Your task to perform on an android device: Go to Reddit Image 0: 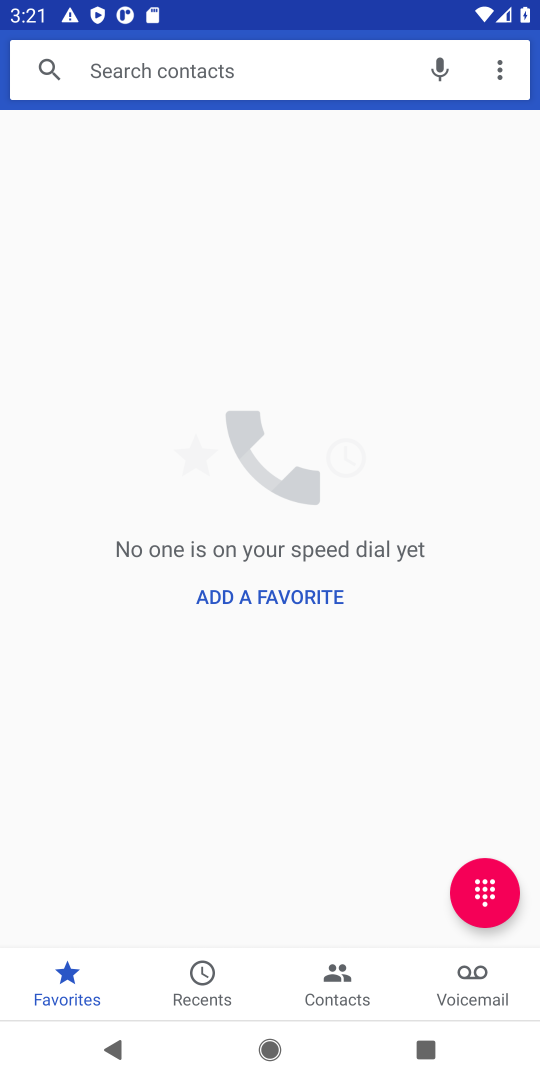
Step 0: press home button
Your task to perform on an android device: Go to Reddit Image 1: 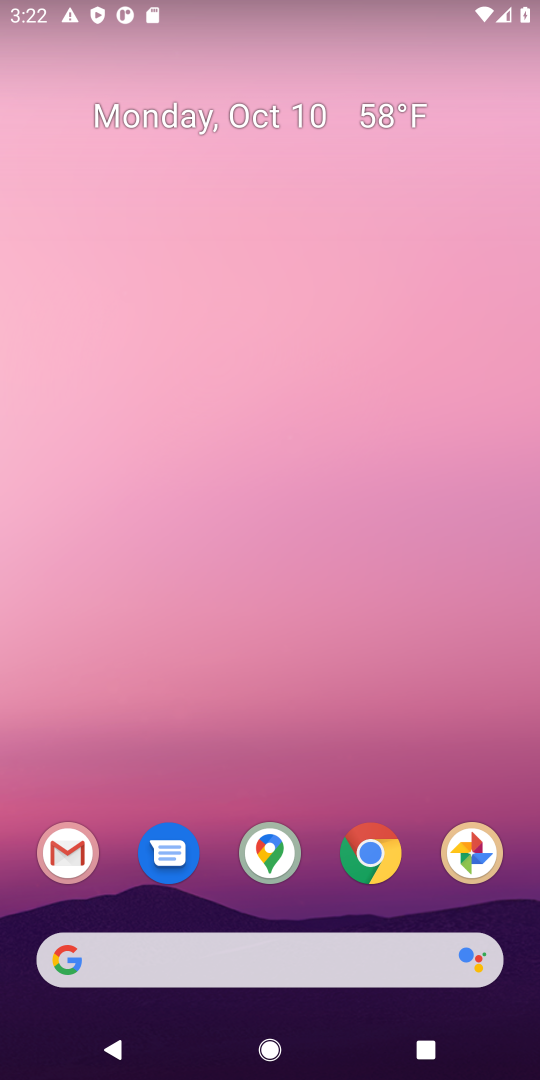
Step 1: click (222, 961)
Your task to perform on an android device: Go to Reddit Image 2: 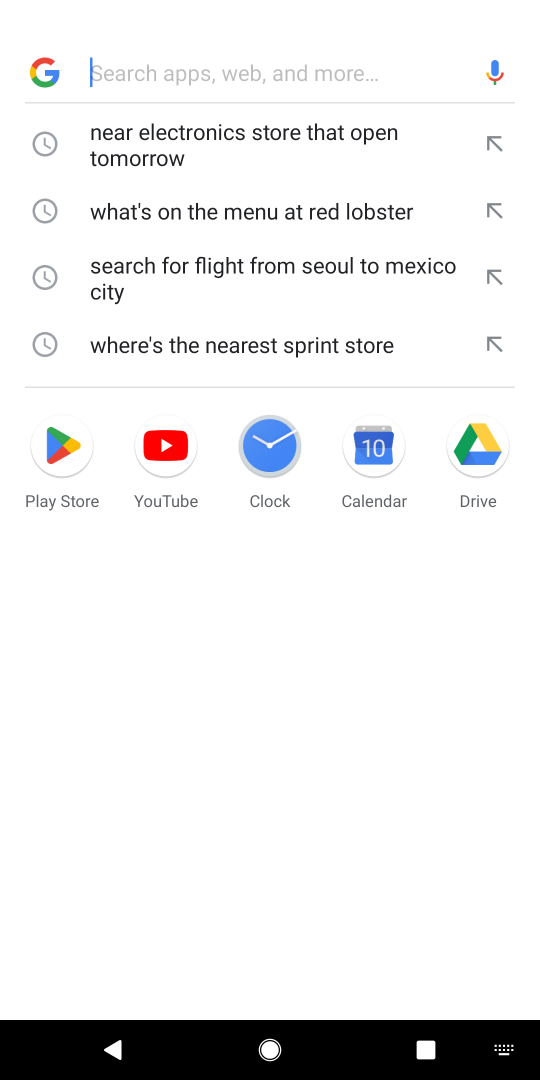
Step 2: click (201, 92)
Your task to perform on an android device: Go to Reddit Image 3: 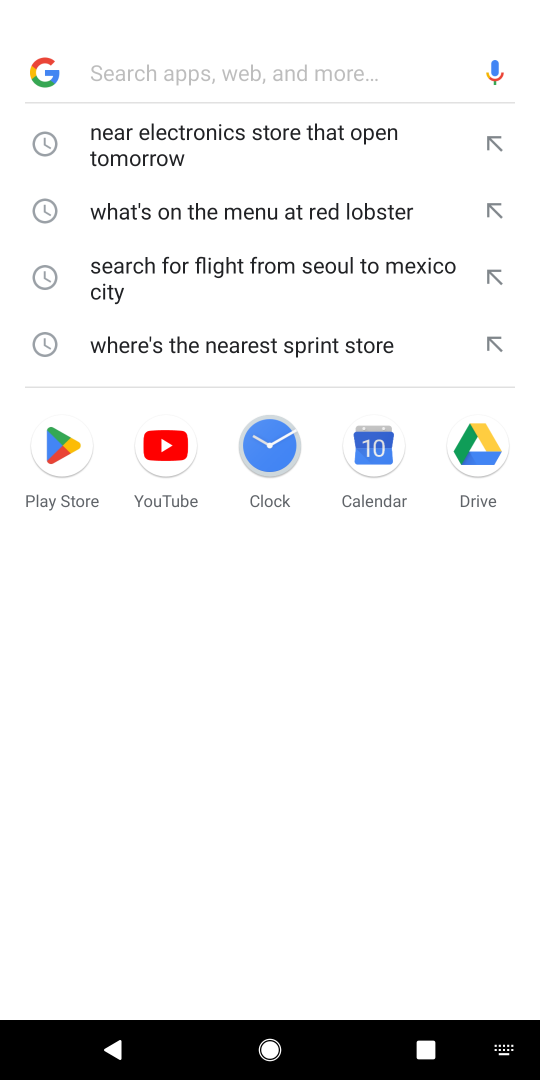
Step 3: type "Reddit"
Your task to perform on an android device: Go to Reddit Image 4: 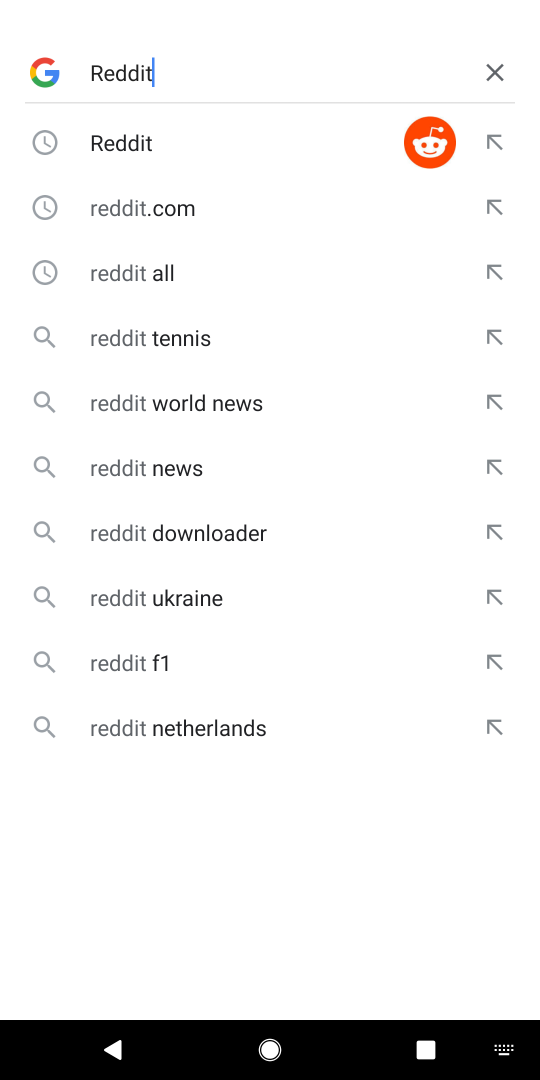
Step 4: click (178, 117)
Your task to perform on an android device: Go to Reddit Image 5: 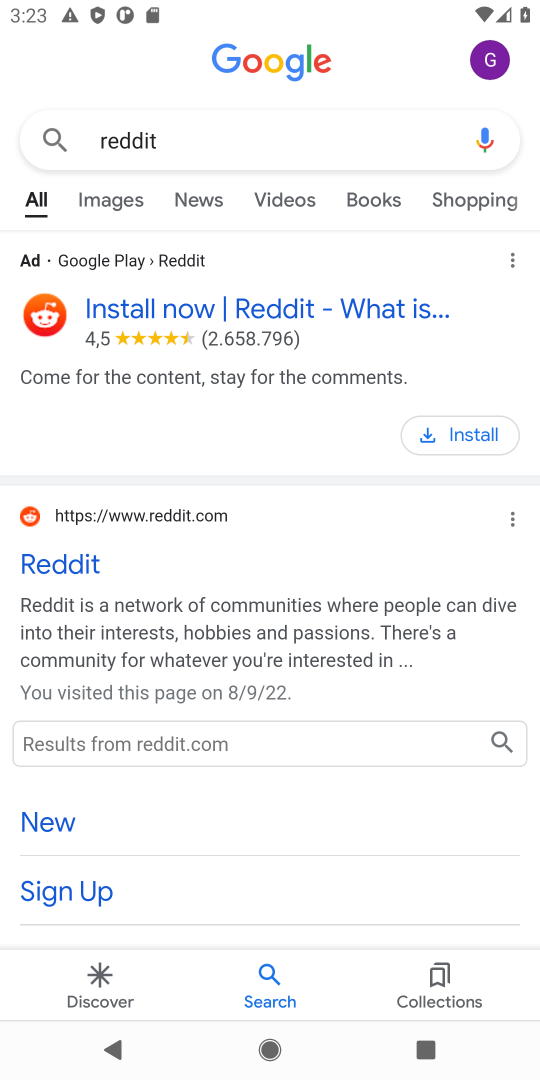
Step 5: task complete